Your task to perform on an android device: Open display settings Image 0: 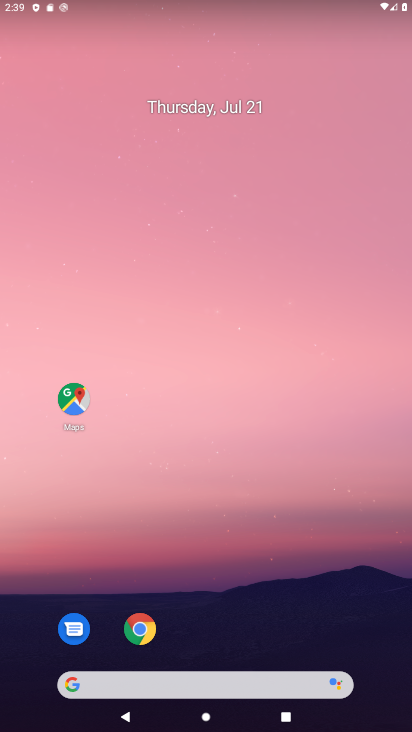
Step 0: press home button
Your task to perform on an android device: Open display settings Image 1: 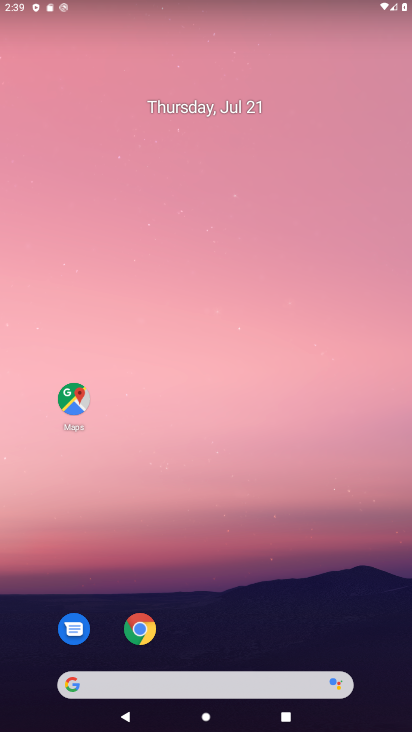
Step 1: drag from (247, 562) to (341, 33)
Your task to perform on an android device: Open display settings Image 2: 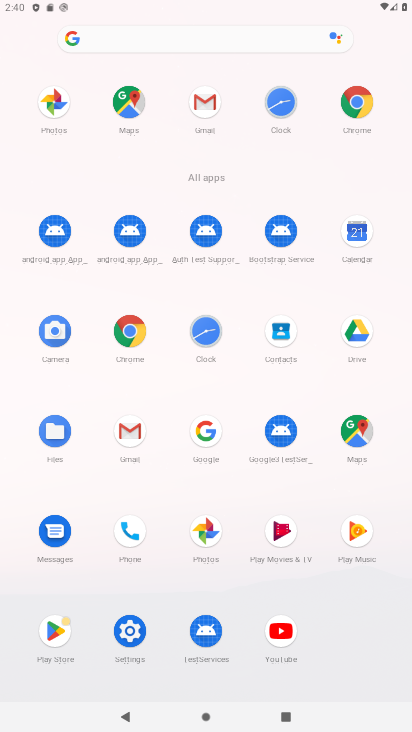
Step 2: click (133, 649)
Your task to perform on an android device: Open display settings Image 3: 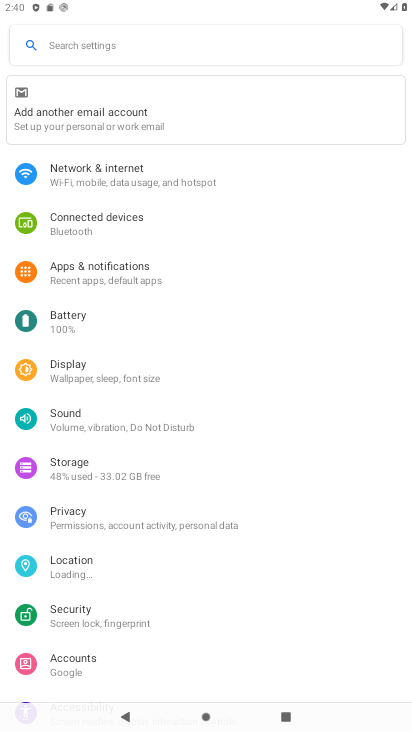
Step 3: click (98, 383)
Your task to perform on an android device: Open display settings Image 4: 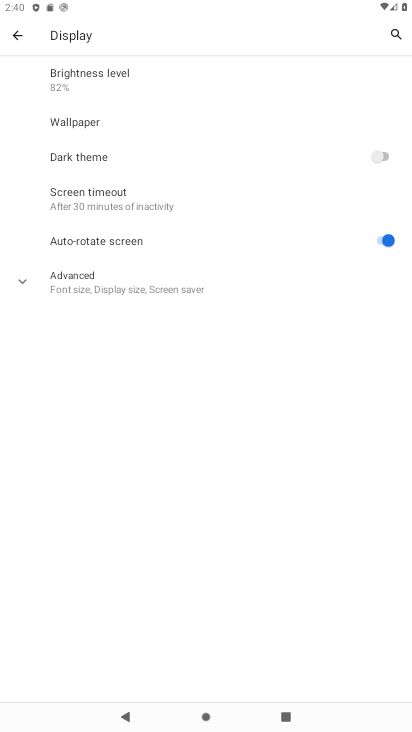
Step 4: task complete